Your task to perform on an android device: allow cookies in the chrome app Image 0: 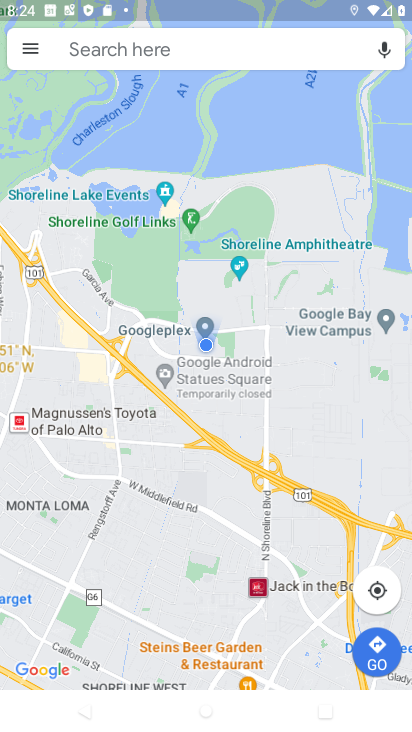
Step 0: press home button
Your task to perform on an android device: allow cookies in the chrome app Image 1: 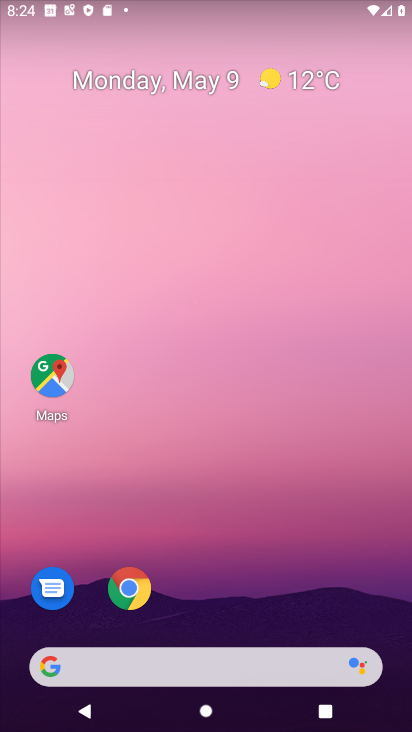
Step 1: drag from (185, 675) to (344, 171)
Your task to perform on an android device: allow cookies in the chrome app Image 2: 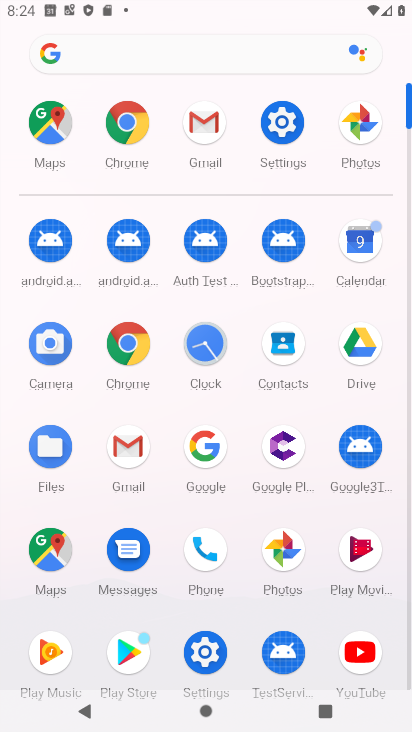
Step 2: click (126, 128)
Your task to perform on an android device: allow cookies in the chrome app Image 3: 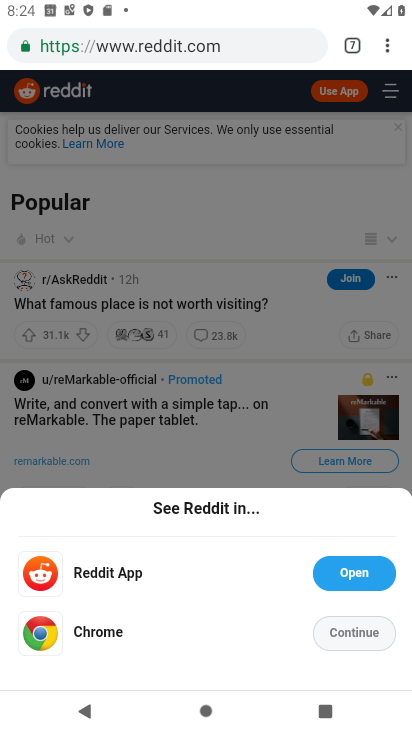
Step 3: drag from (384, 48) to (239, 553)
Your task to perform on an android device: allow cookies in the chrome app Image 4: 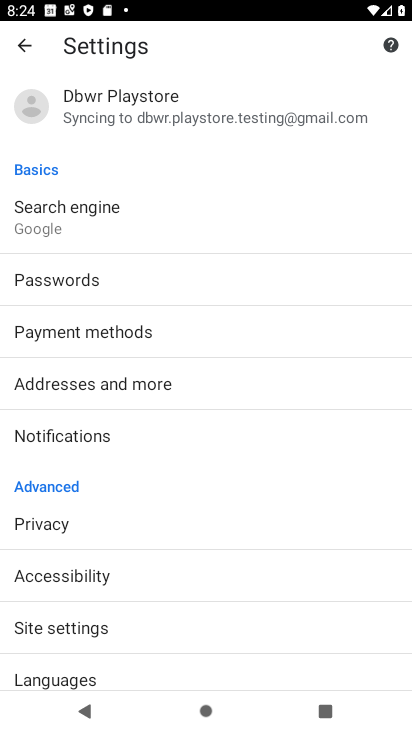
Step 4: drag from (149, 609) to (258, 363)
Your task to perform on an android device: allow cookies in the chrome app Image 5: 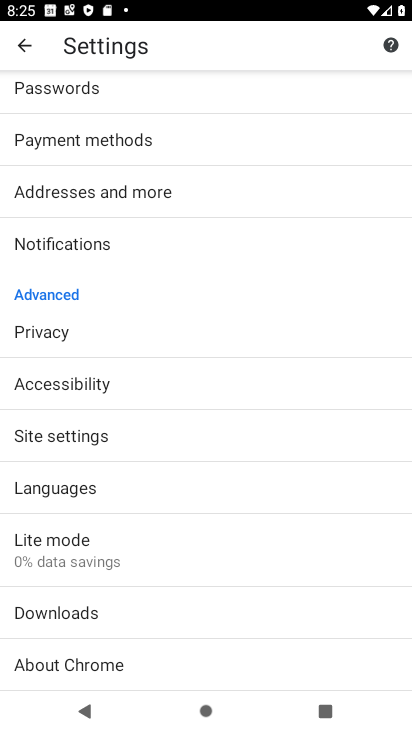
Step 5: click (70, 440)
Your task to perform on an android device: allow cookies in the chrome app Image 6: 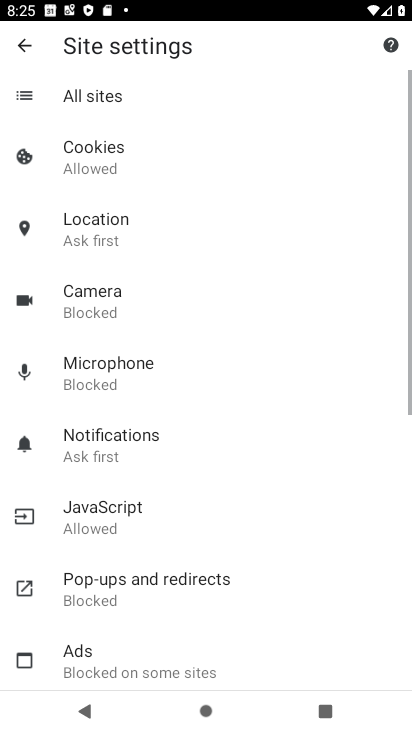
Step 6: click (101, 166)
Your task to perform on an android device: allow cookies in the chrome app Image 7: 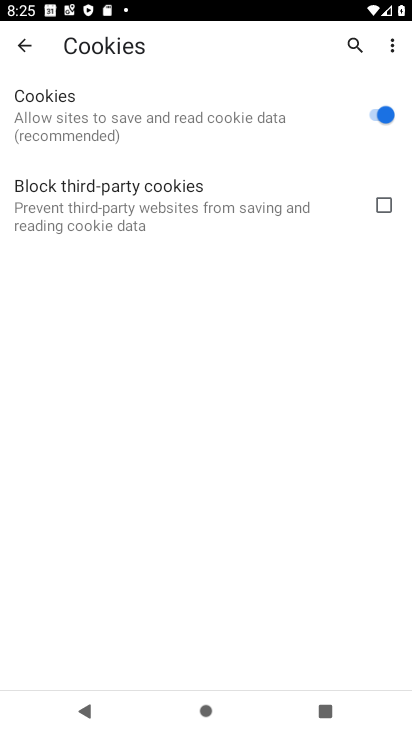
Step 7: task complete